Your task to perform on an android device: turn on the 12-hour format for clock Image 0: 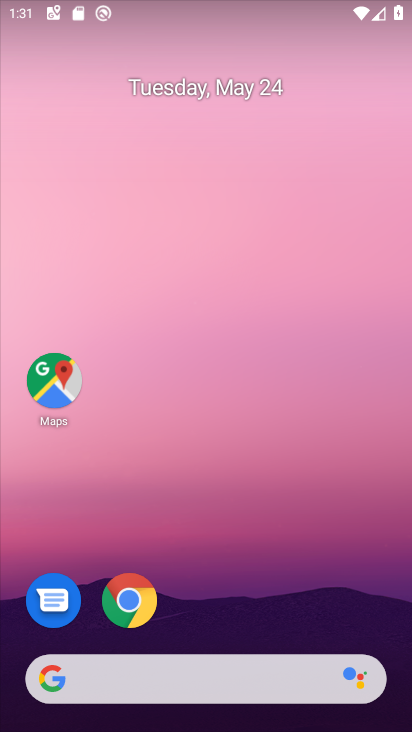
Step 0: drag from (264, 617) to (294, 267)
Your task to perform on an android device: turn on the 12-hour format for clock Image 1: 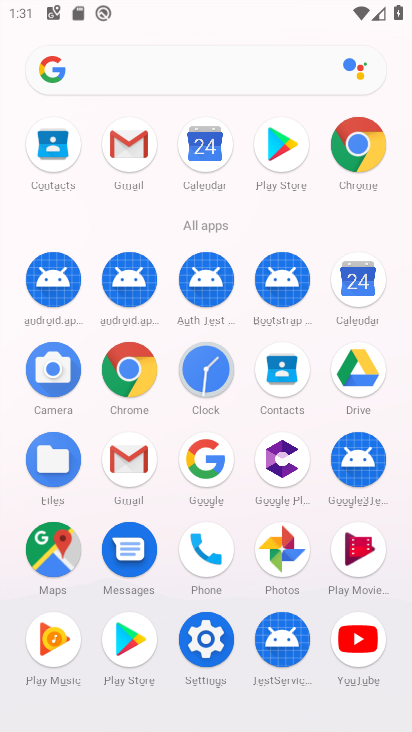
Step 1: click (249, 456)
Your task to perform on an android device: turn on the 12-hour format for clock Image 2: 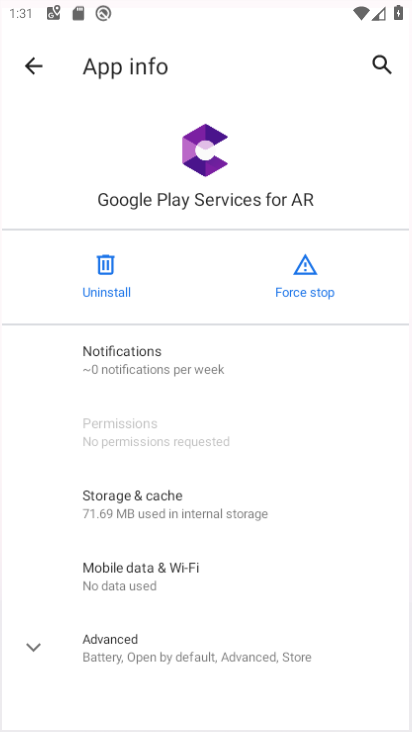
Step 2: click (201, 367)
Your task to perform on an android device: turn on the 12-hour format for clock Image 3: 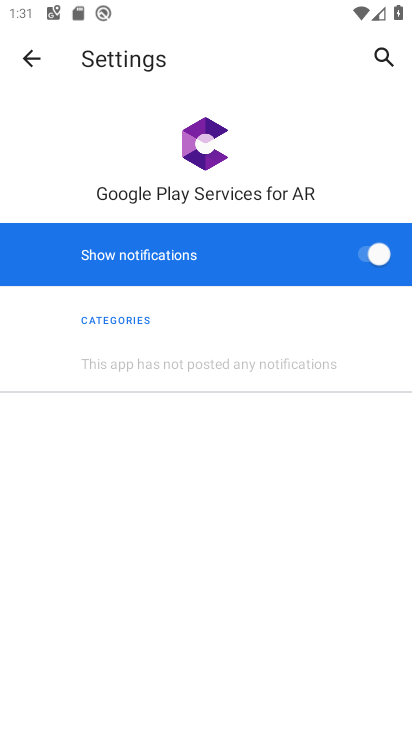
Step 3: press home button
Your task to perform on an android device: turn on the 12-hour format for clock Image 4: 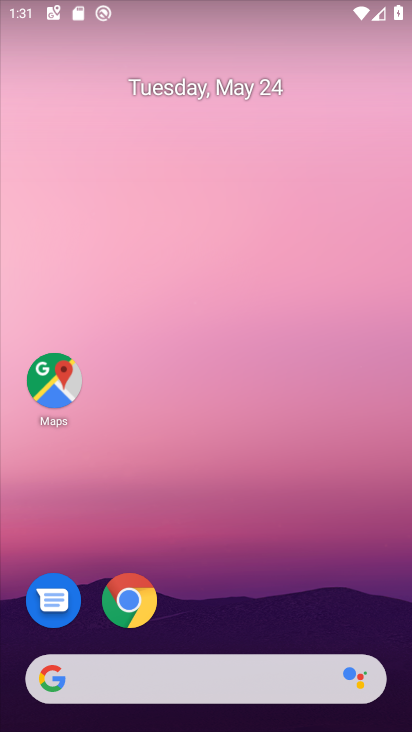
Step 4: drag from (198, 564) to (244, 247)
Your task to perform on an android device: turn on the 12-hour format for clock Image 5: 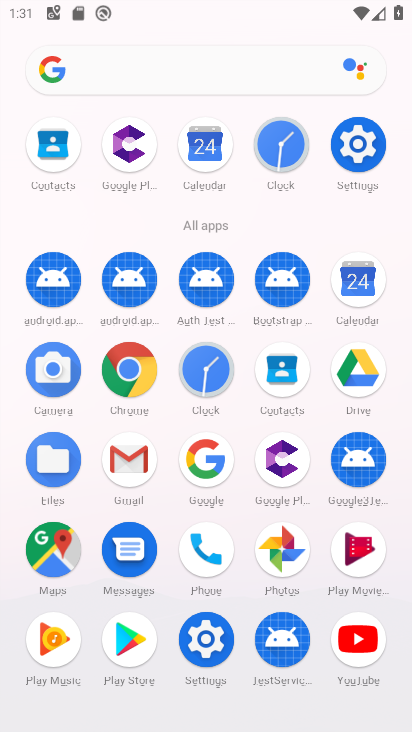
Step 5: click (214, 392)
Your task to perform on an android device: turn on the 12-hour format for clock Image 6: 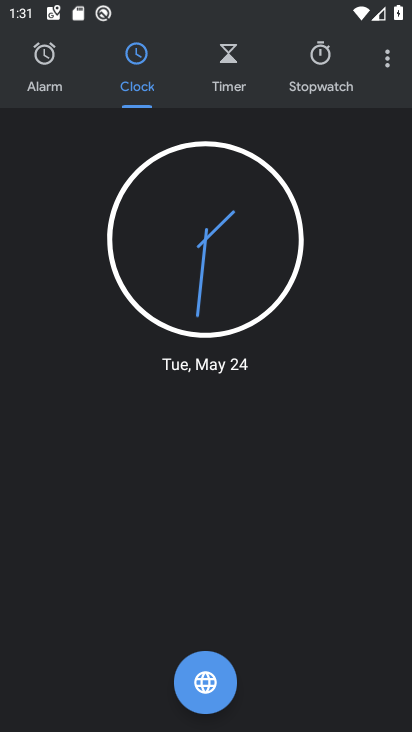
Step 6: click (385, 47)
Your task to perform on an android device: turn on the 12-hour format for clock Image 7: 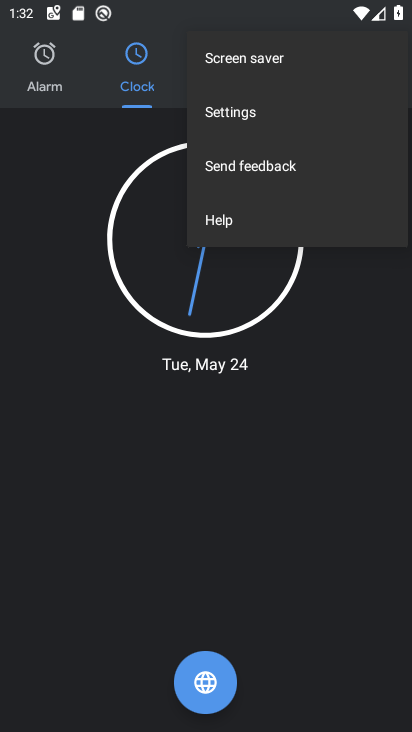
Step 7: click (249, 117)
Your task to perform on an android device: turn on the 12-hour format for clock Image 8: 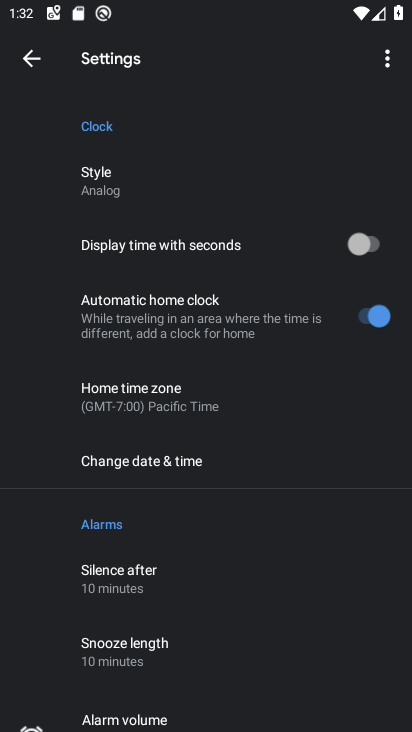
Step 8: drag from (208, 586) to (212, 200)
Your task to perform on an android device: turn on the 12-hour format for clock Image 9: 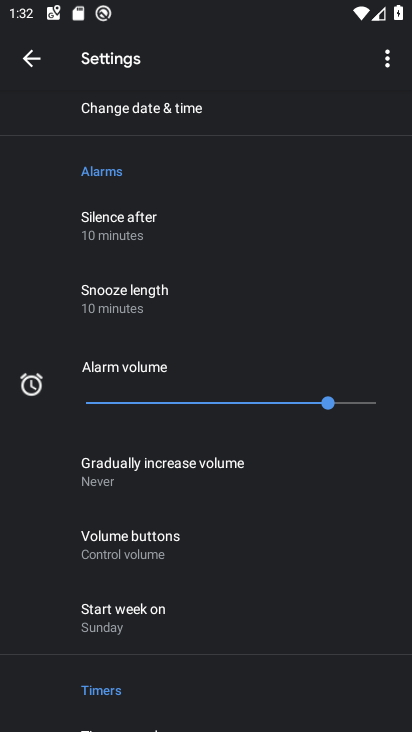
Step 9: drag from (172, 216) to (179, 584)
Your task to perform on an android device: turn on the 12-hour format for clock Image 10: 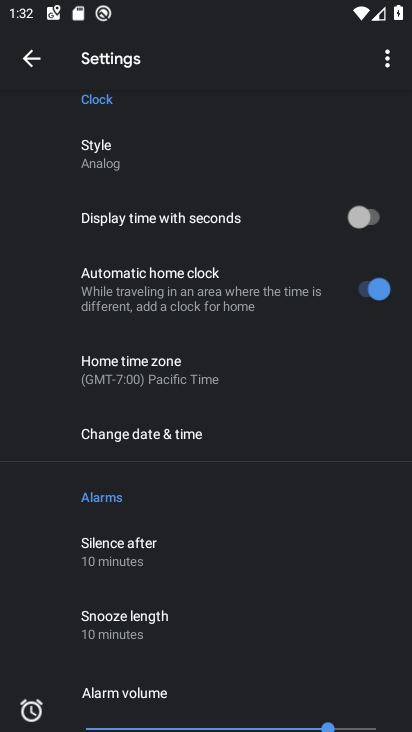
Step 10: drag from (204, 581) to (268, 196)
Your task to perform on an android device: turn on the 12-hour format for clock Image 11: 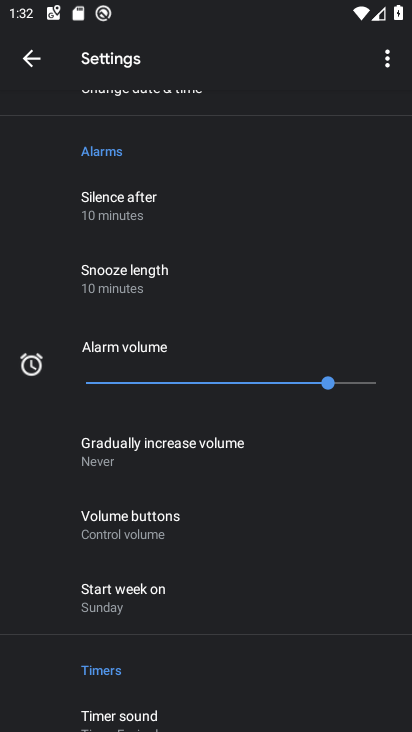
Step 11: drag from (264, 520) to (261, 193)
Your task to perform on an android device: turn on the 12-hour format for clock Image 12: 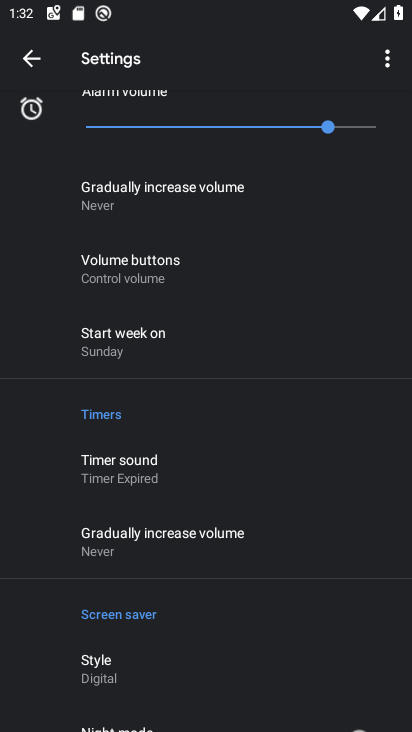
Step 12: drag from (194, 550) to (196, 231)
Your task to perform on an android device: turn on the 12-hour format for clock Image 13: 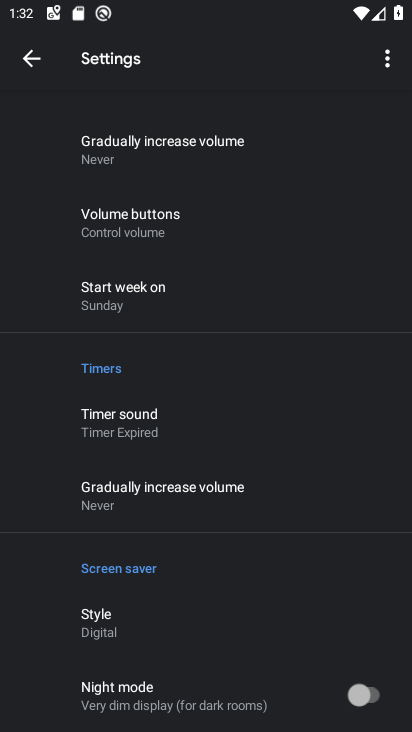
Step 13: drag from (171, 324) to (180, 672)
Your task to perform on an android device: turn on the 12-hour format for clock Image 14: 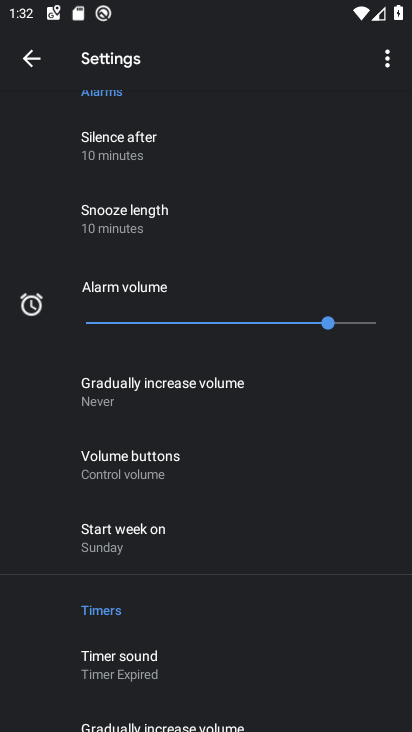
Step 14: drag from (208, 359) to (211, 634)
Your task to perform on an android device: turn on the 12-hour format for clock Image 15: 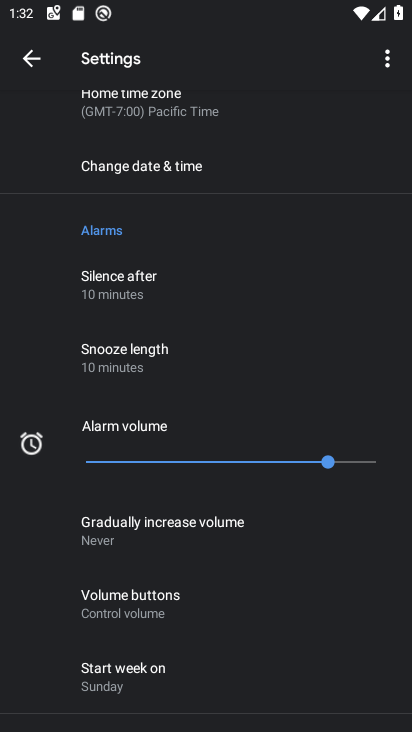
Step 15: drag from (209, 384) to (203, 589)
Your task to perform on an android device: turn on the 12-hour format for clock Image 16: 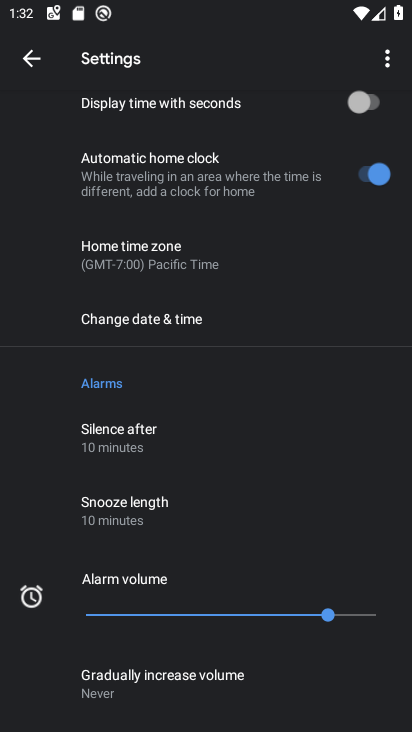
Step 16: click (163, 314)
Your task to perform on an android device: turn on the 12-hour format for clock Image 17: 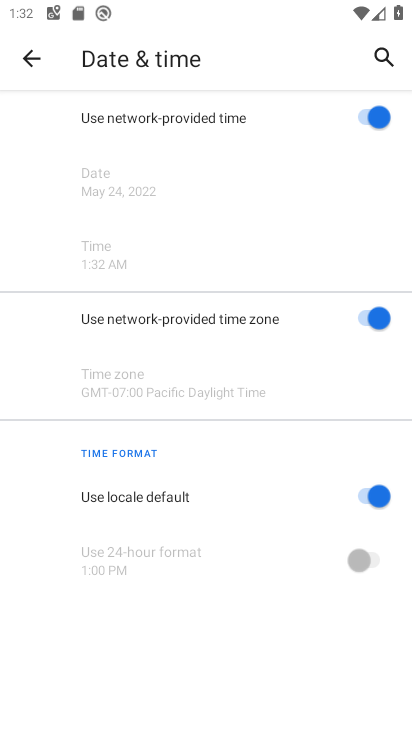
Step 17: click (376, 496)
Your task to perform on an android device: turn on the 12-hour format for clock Image 18: 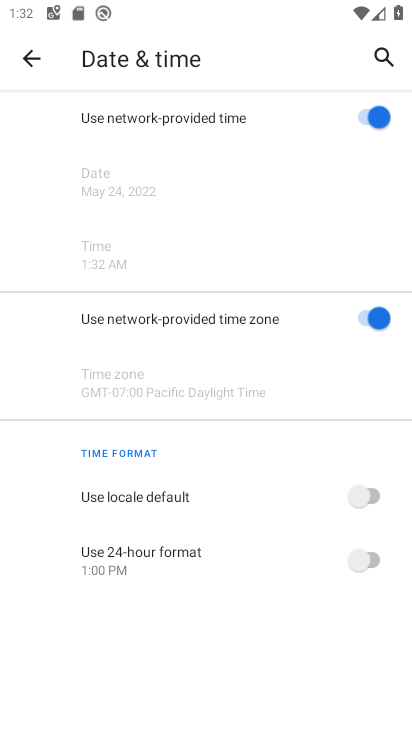
Step 18: click (374, 550)
Your task to perform on an android device: turn on the 12-hour format for clock Image 19: 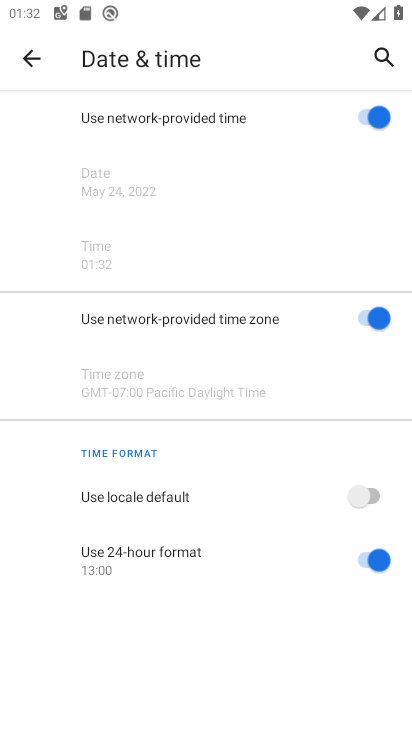
Step 19: task complete